Your task to perform on an android device: search for starred emails in the gmail app Image 0: 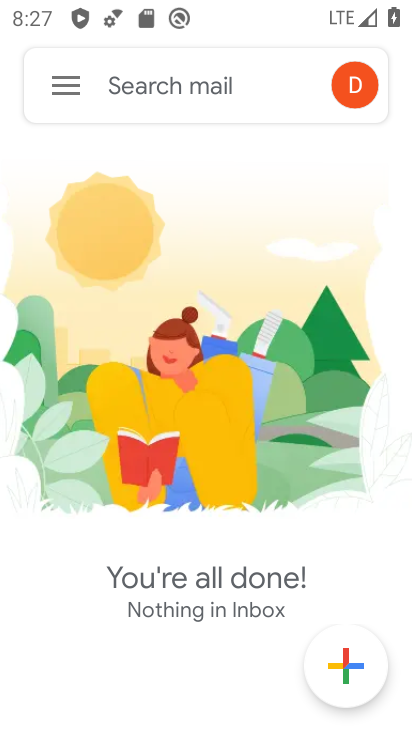
Step 0: click (56, 84)
Your task to perform on an android device: search for starred emails in the gmail app Image 1: 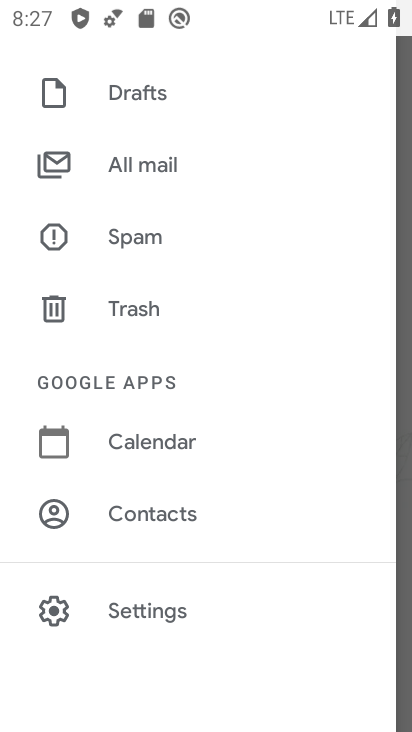
Step 1: drag from (240, 178) to (383, 655)
Your task to perform on an android device: search for starred emails in the gmail app Image 2: 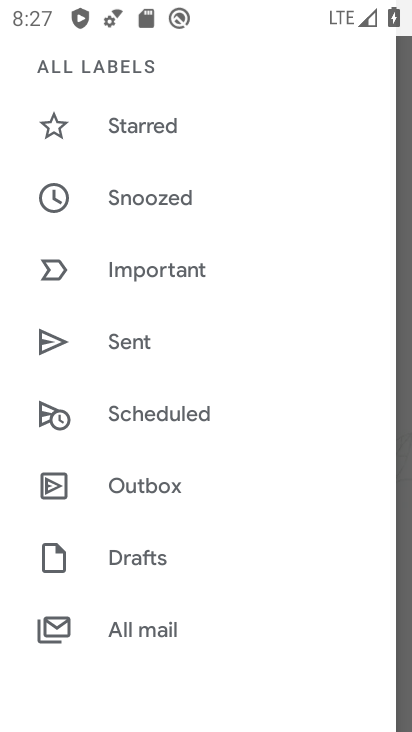
Step 2: click (123, 114)
Your task to perform on an android device: search for starred emails in the gmail app Image 3: 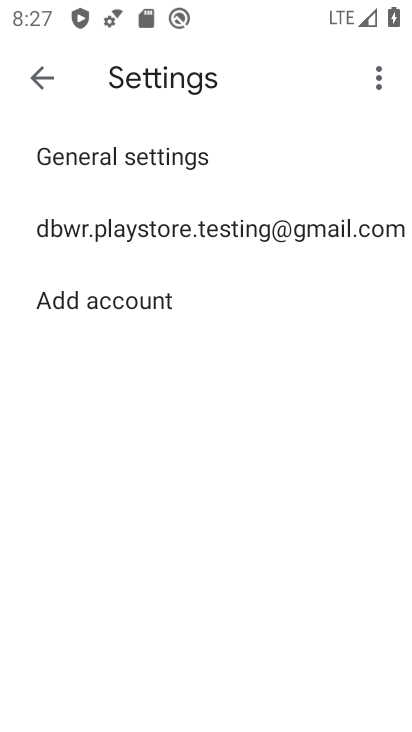
Step 3: task complete